Your task to perform on an android device: Go to Google maps Image 0: 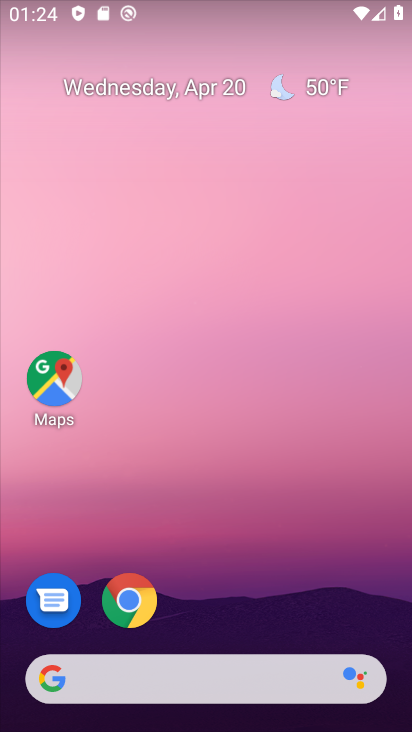
Step 0: click (76, 378)
Your task to perform on an android device: Go to Google maps Image 1: 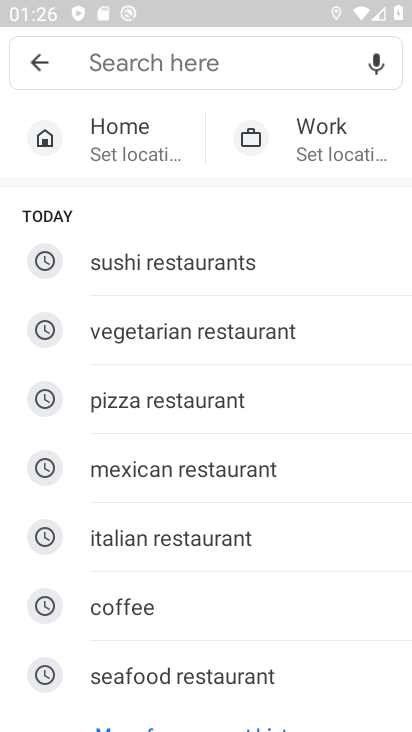
Step 1: task complete